Your task to perform on an android device: Go to eBay Image 0: 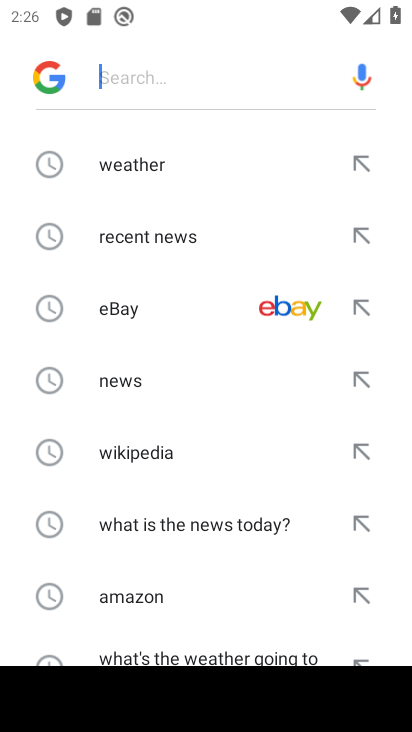
Step 0: press home button
Your task to perform on an android device: Go to eBay Image 1: 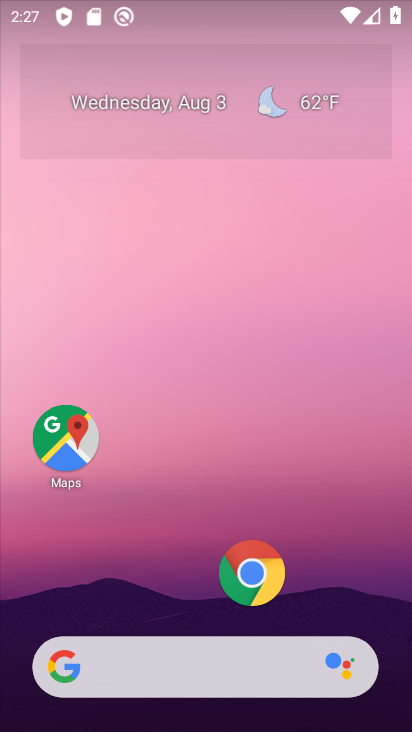
Step 1: click (261, 565)
Your task to perform on an android device: Go to eBay Image 2: 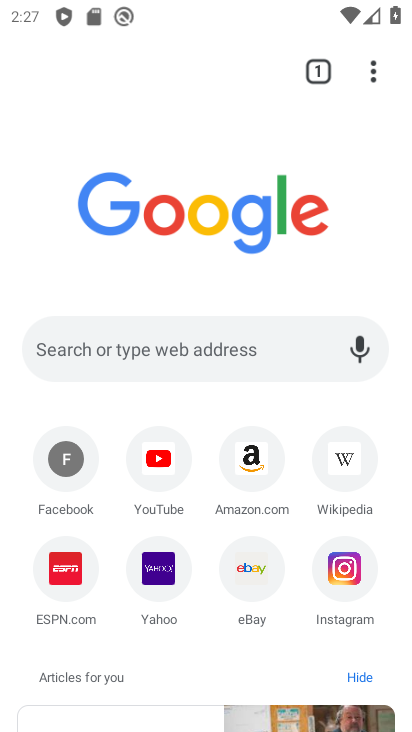
Step 2: click (256, 575)
Your task to perform on an android device: Go to eBay Image 3: 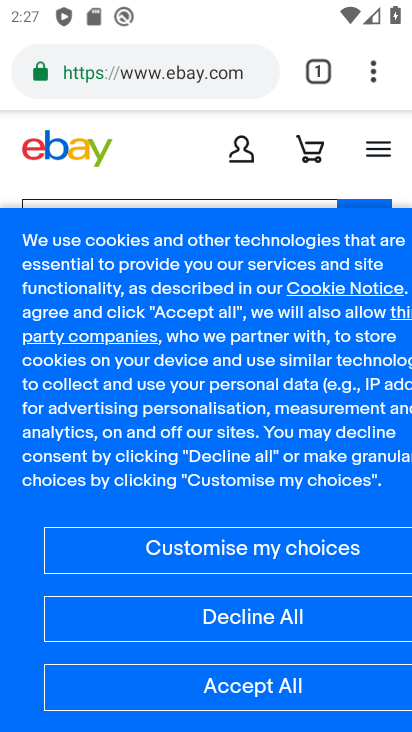
Step 3: task complete